Your task to perform on an android device: open app "Airtel Thanks" Image 0: 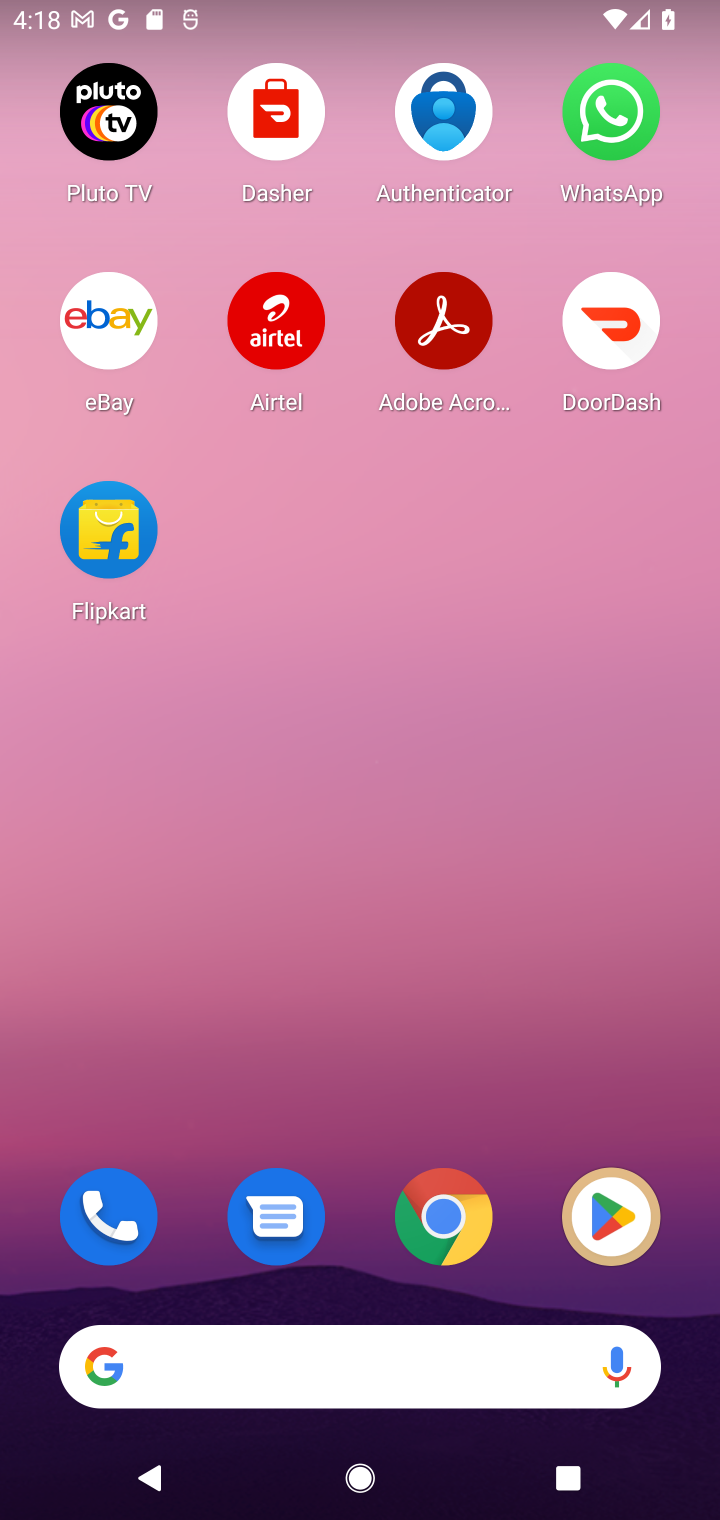
Step 0: drag from (342, 1131) to (353, 826)
Your task to perform on an android device: open app "Airtel Thanks" Image 1: 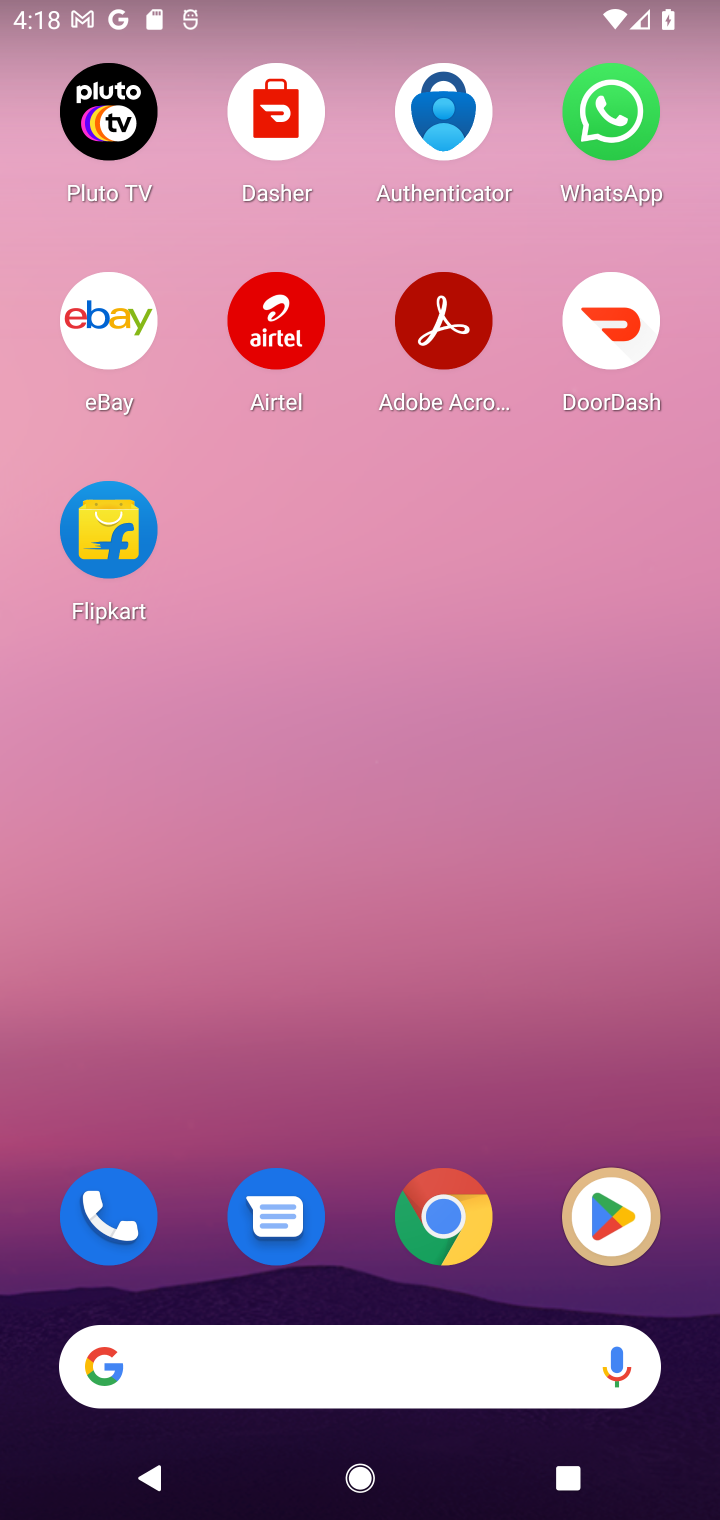
Step 1: press back button
Your task to perform on an android device: open app "Airtel Thanks" Image 2: 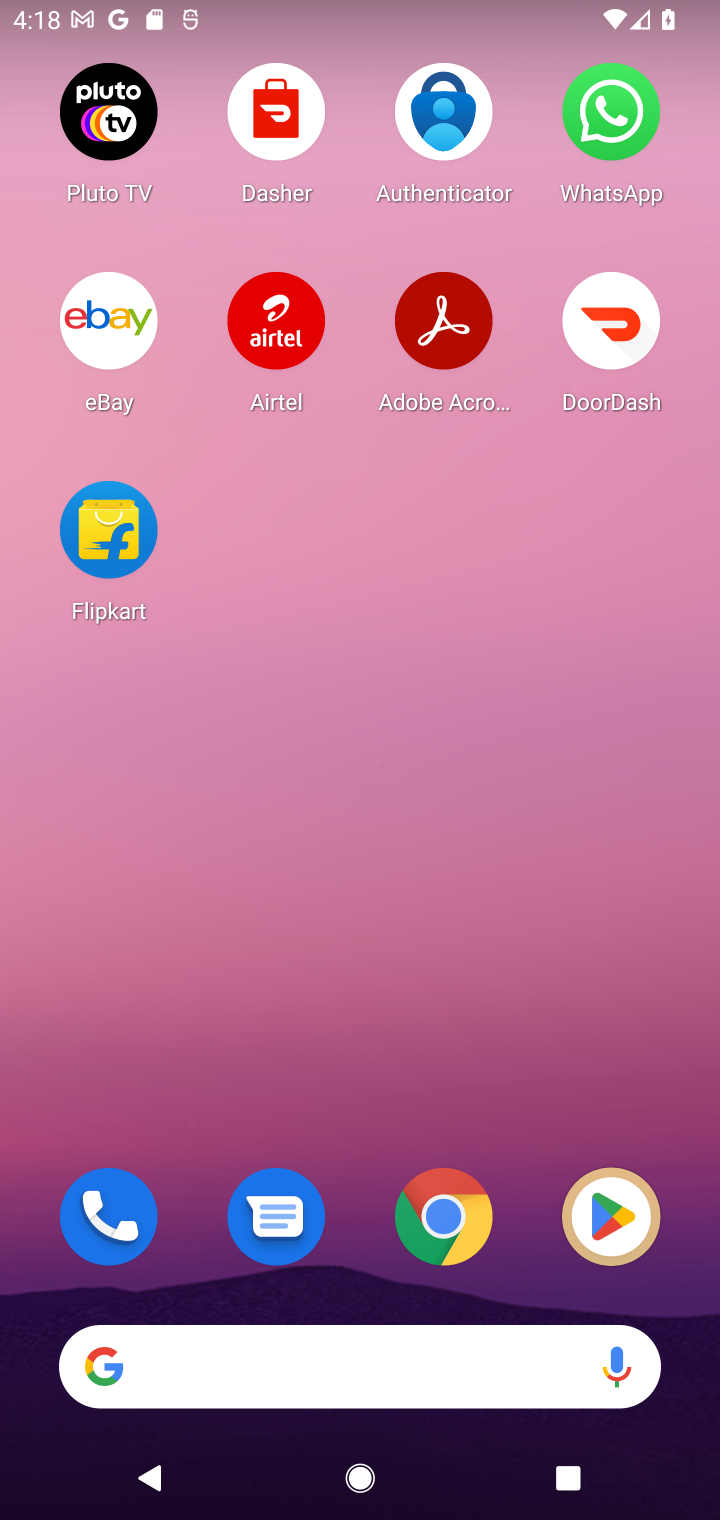
Step 2: click (623, 1191)
Your task to perform on an android device: open app "Airtel Thanks" Image 3: 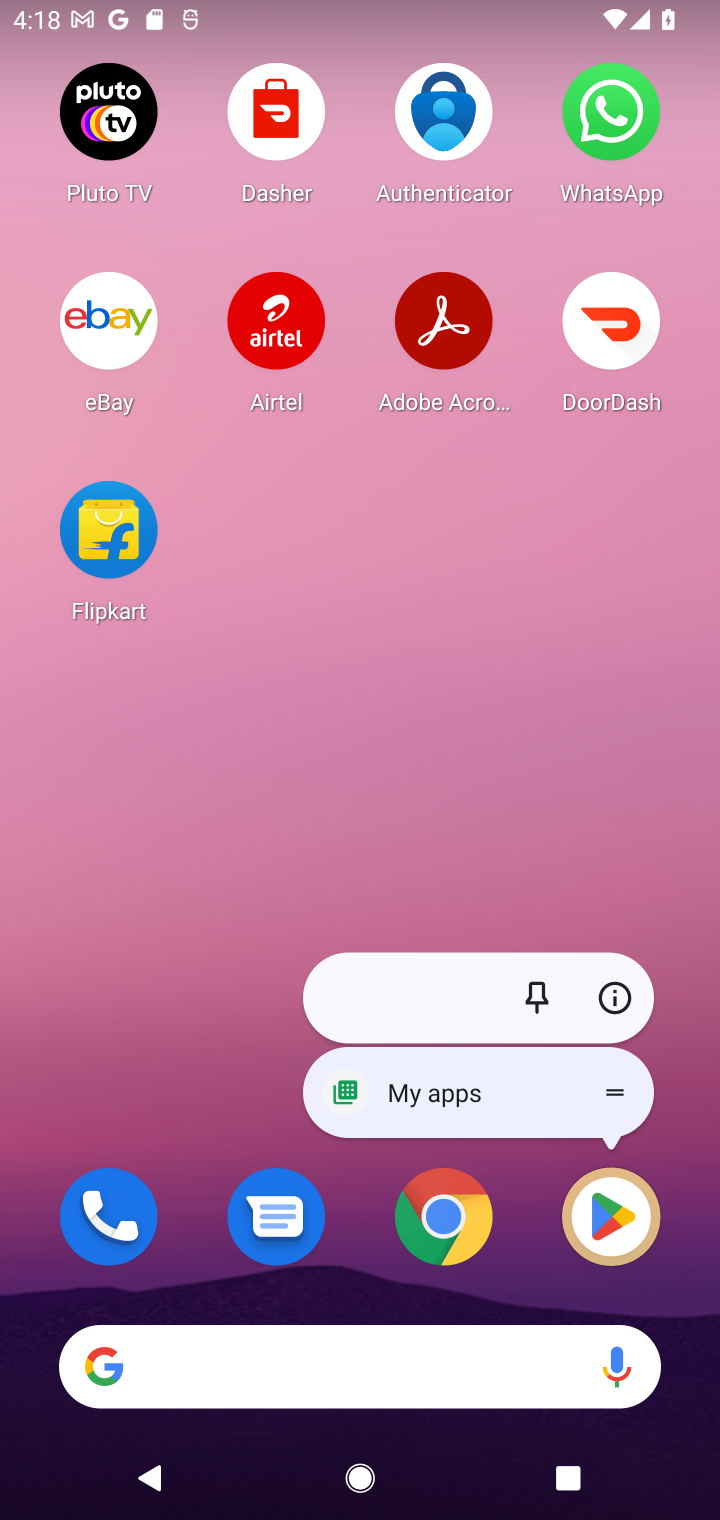
Step 3: click (603, 1181)
Your task to perform on an android device: open app "Airtel Thanks" Image 4: 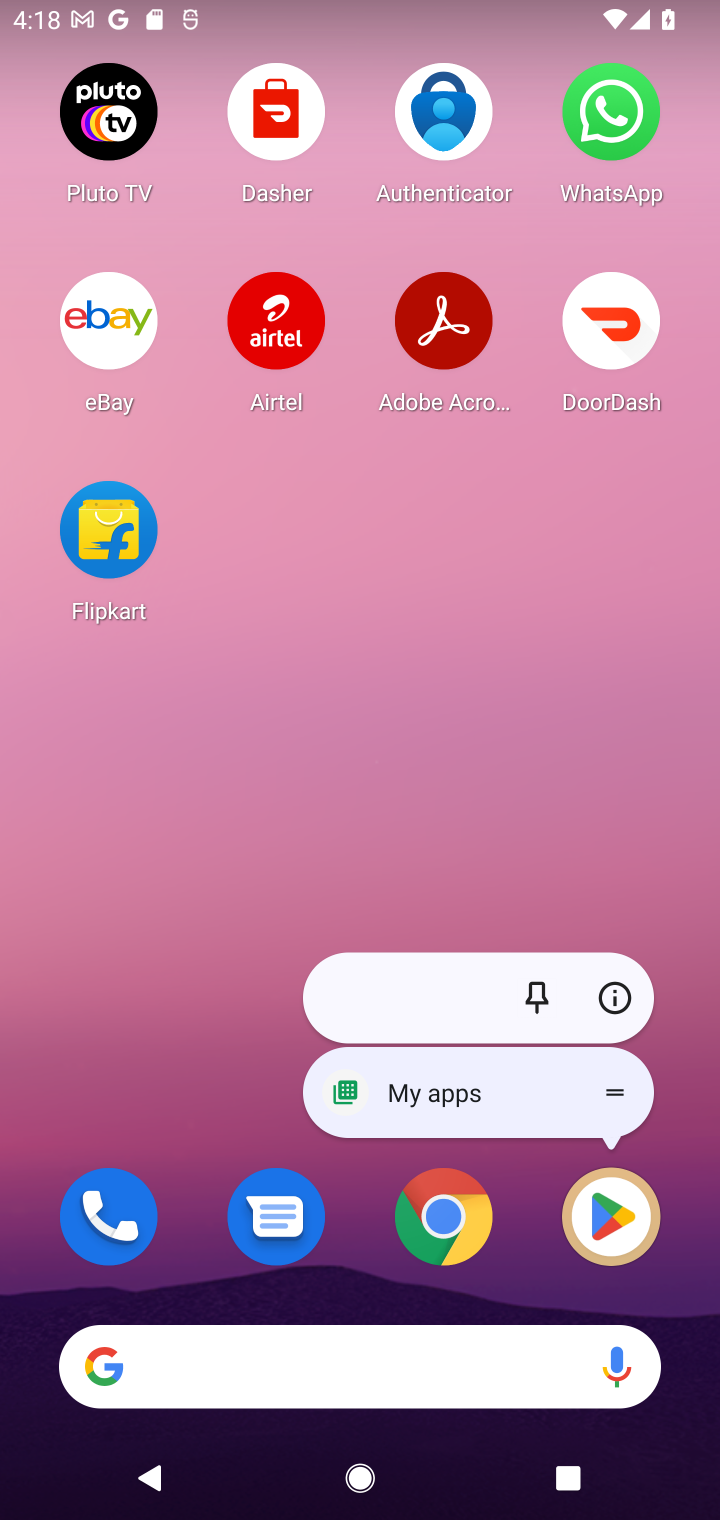
Step 4: click (600, 1208)
Your task to perform on an android device: open app "Airtel Thanks" Image 5: 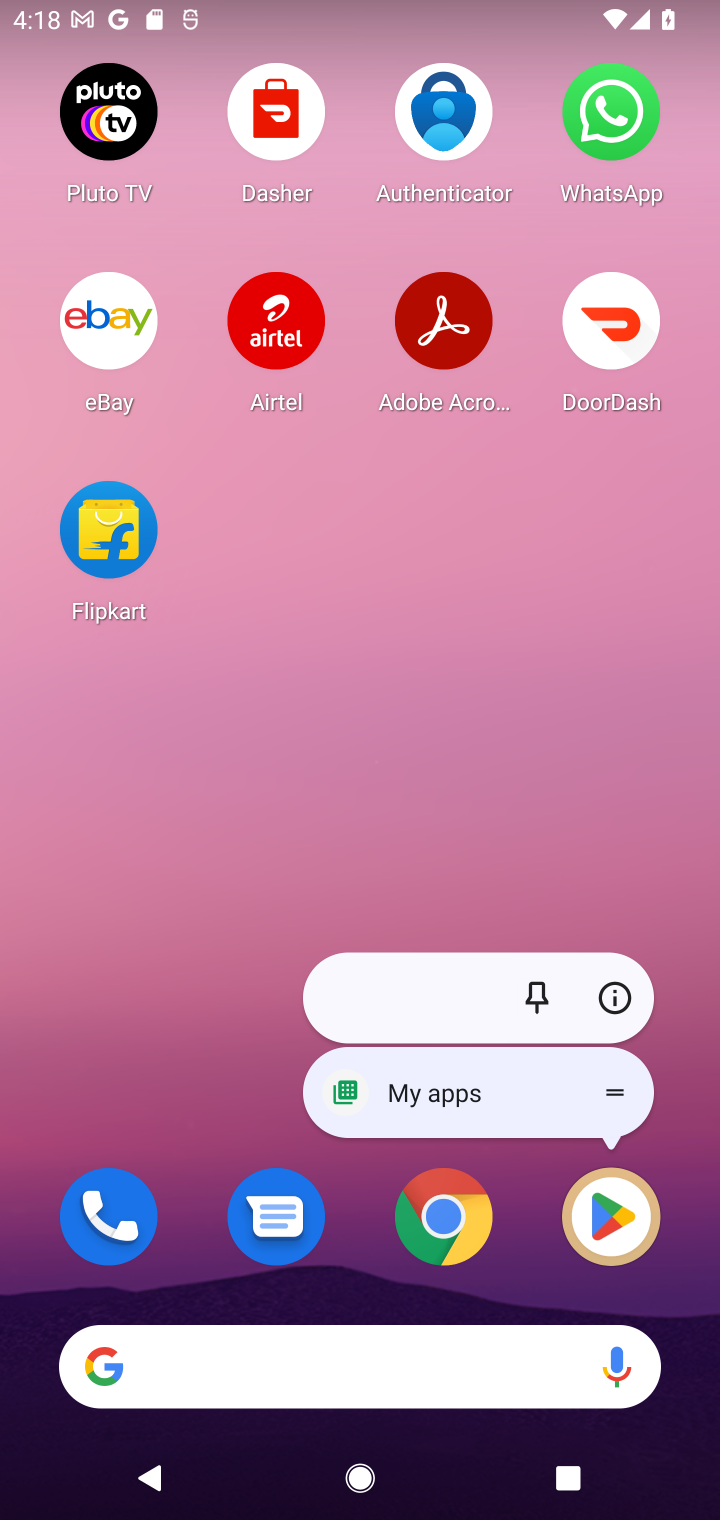
Step 5: click (600, 1208)
Your task to perform on an android device: open app "Airtel Thanks" Image 6: 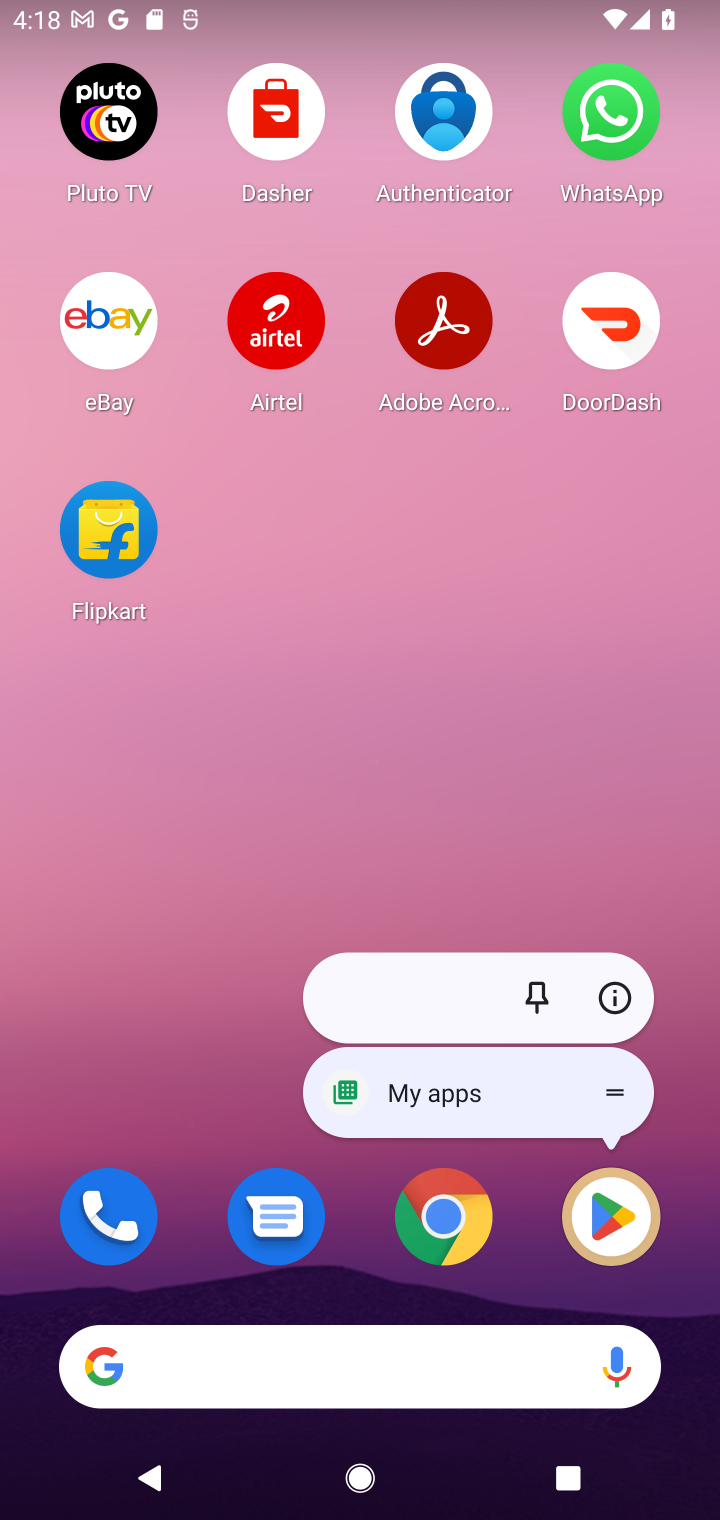
Step 6: click (610, 1207)
Your task to perform on an android device: open app "Airtel Thanks" Image 7: 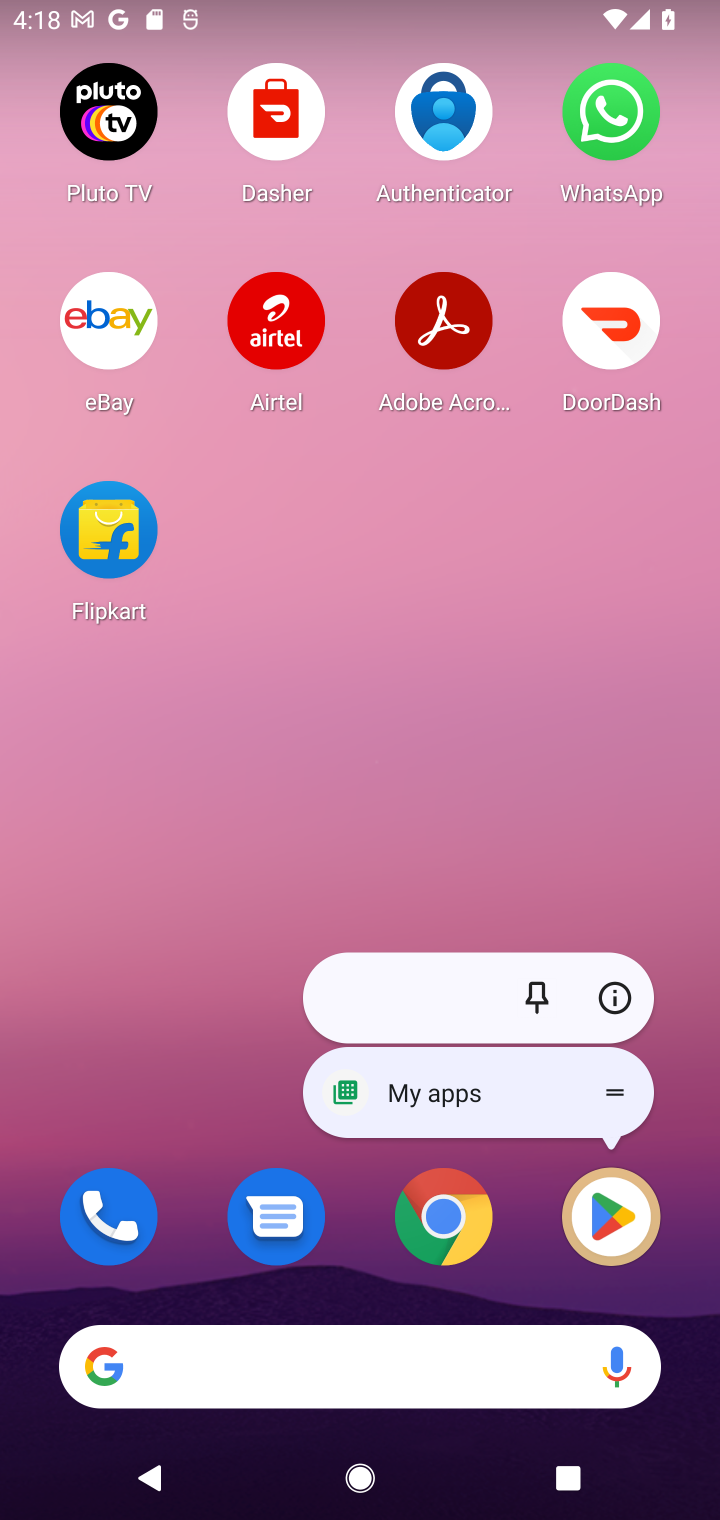
Step 7: click (612, 1212)
Your task to perform on an android device: open app "Airtel Thanks" Image 8: 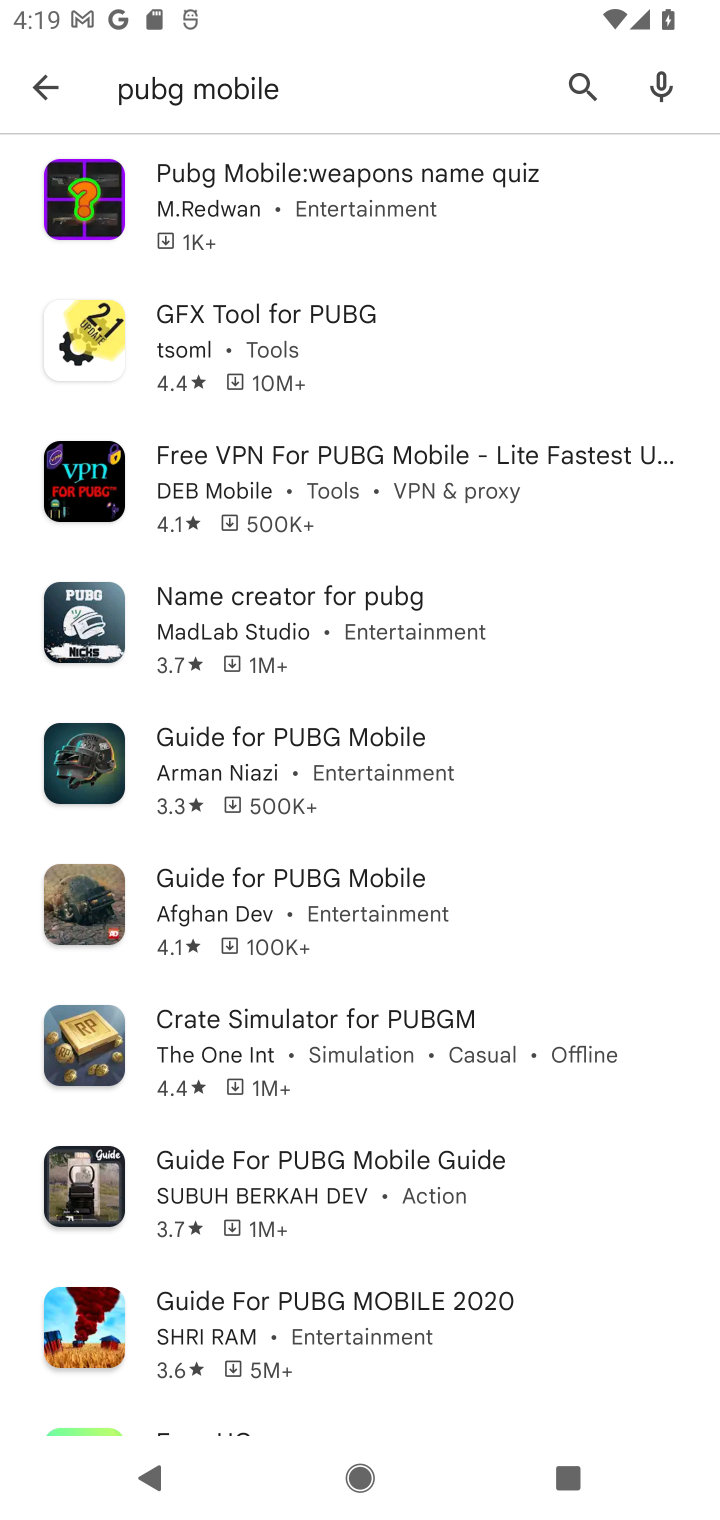
Step 8: click (581, 80)
Your task to perform on an android device: open app "Airtel Thanks" Image 9: 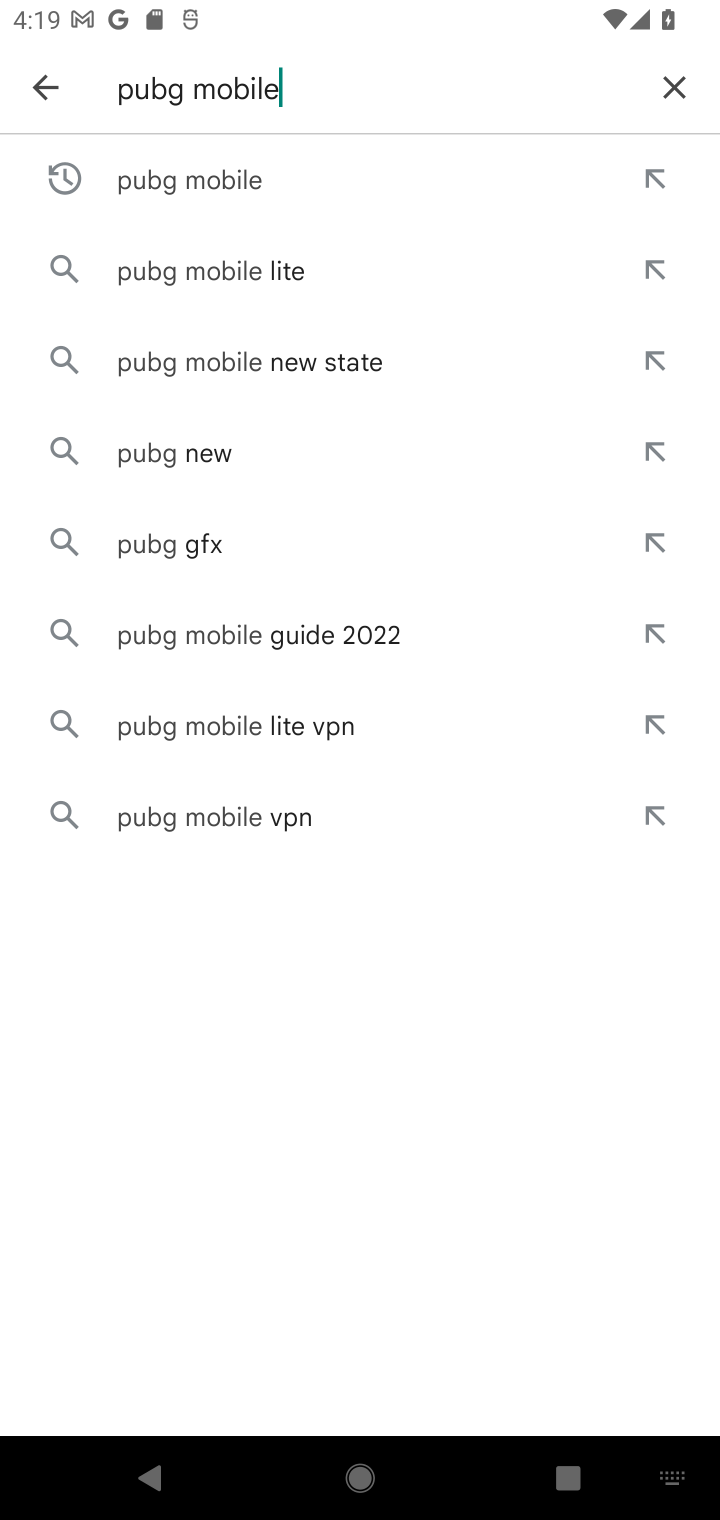
Step 9: click (666, 94)
Your task to perform on an android device: open app "Airtel Thanks" Image 10: 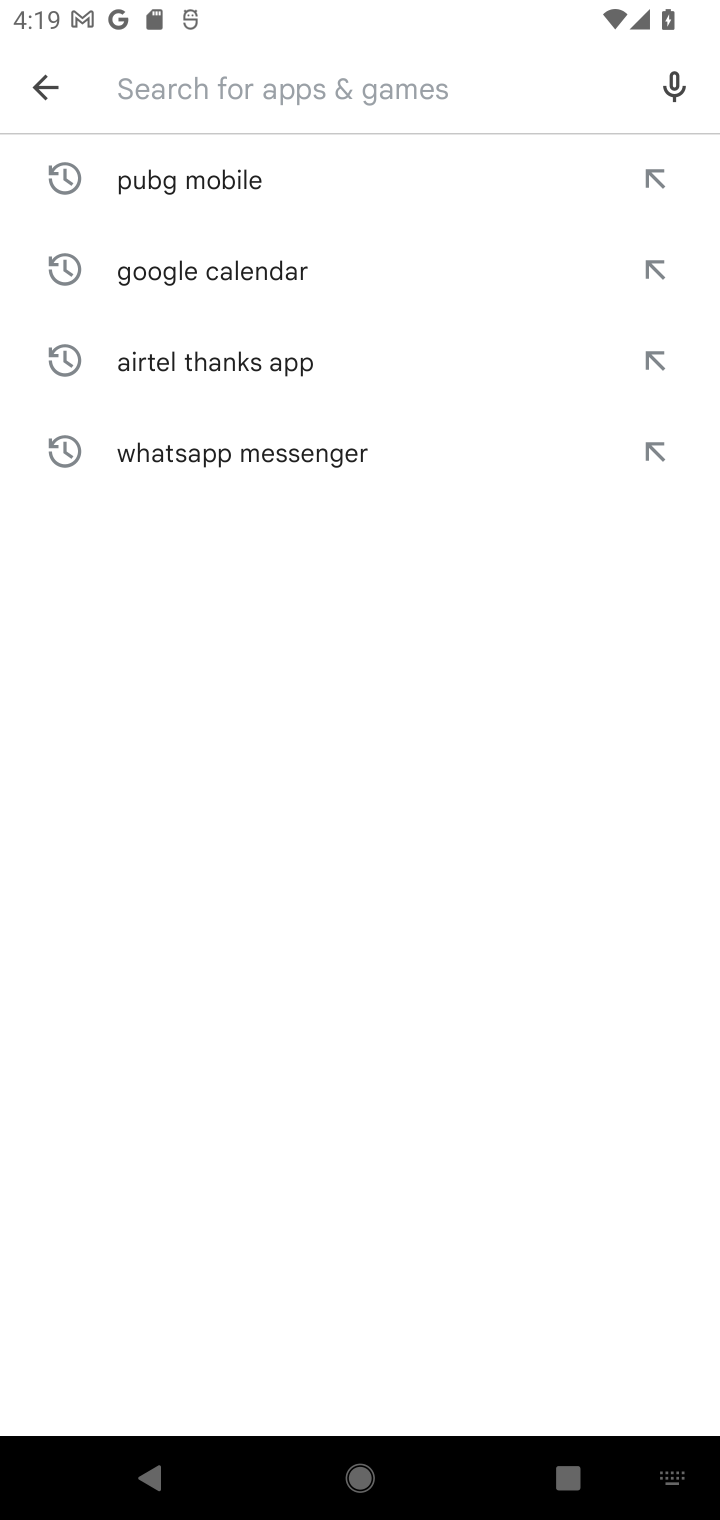
Step 10: type "Airtel Thanks"
Your task to perform on an android device: open app "Airtel Thanks" Image 11: 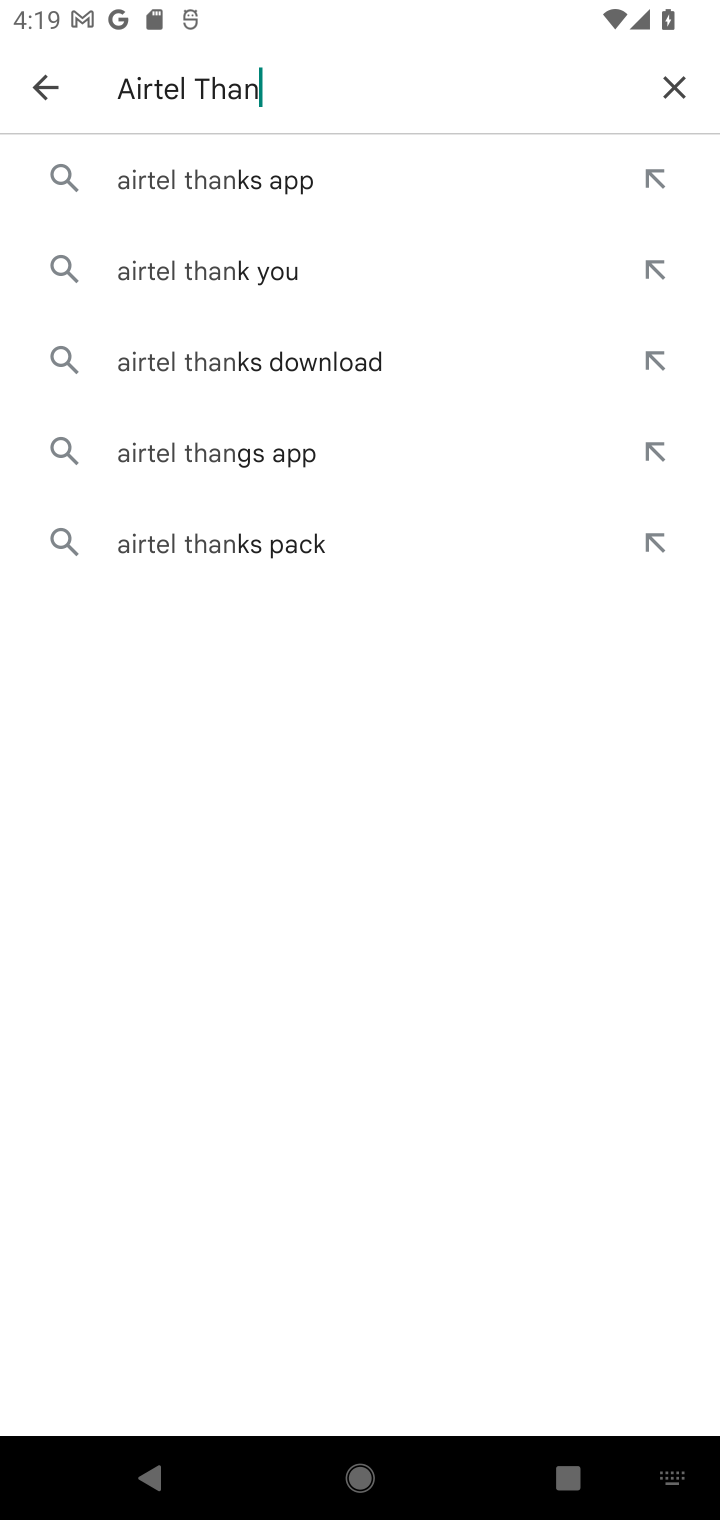
Step 11: type ""
Your task to perform on an android device: open app "Airtel Thanks" Image 12: 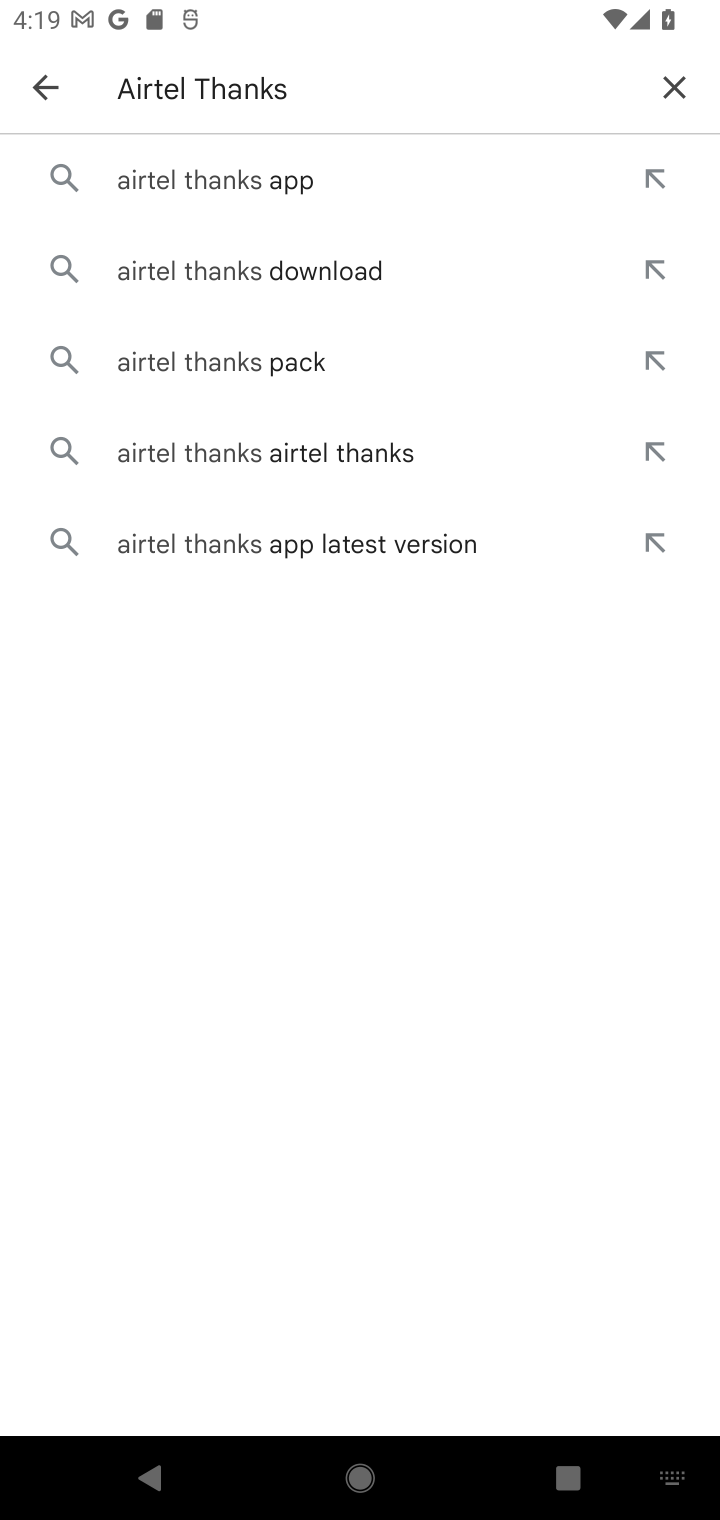
Step 12: click (159, 170)
Your task to perform on an android device: open app "Airtel Thanks" Image 13: 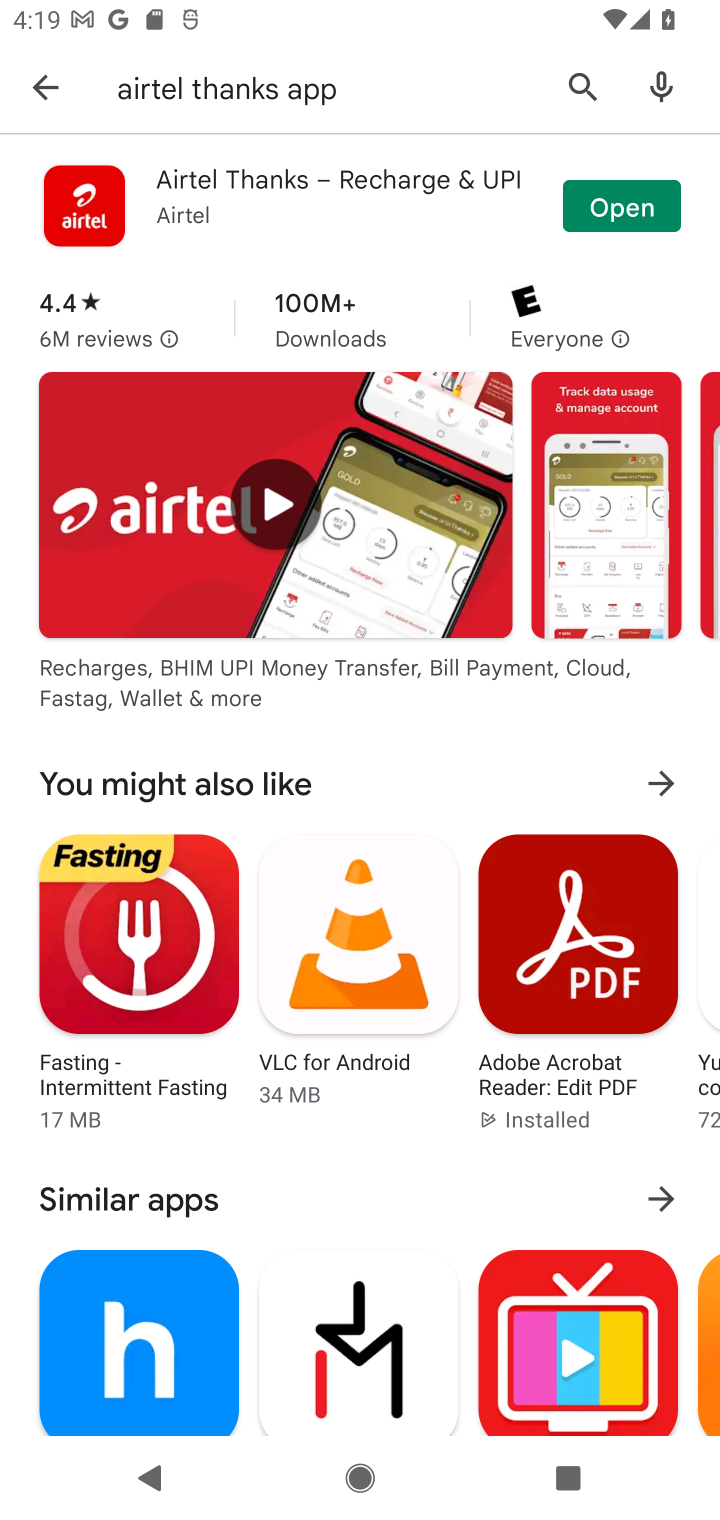
Step 13: click (648, 218)
Your task to perform on an android device: open app "Airtel Thanks" Image 14: 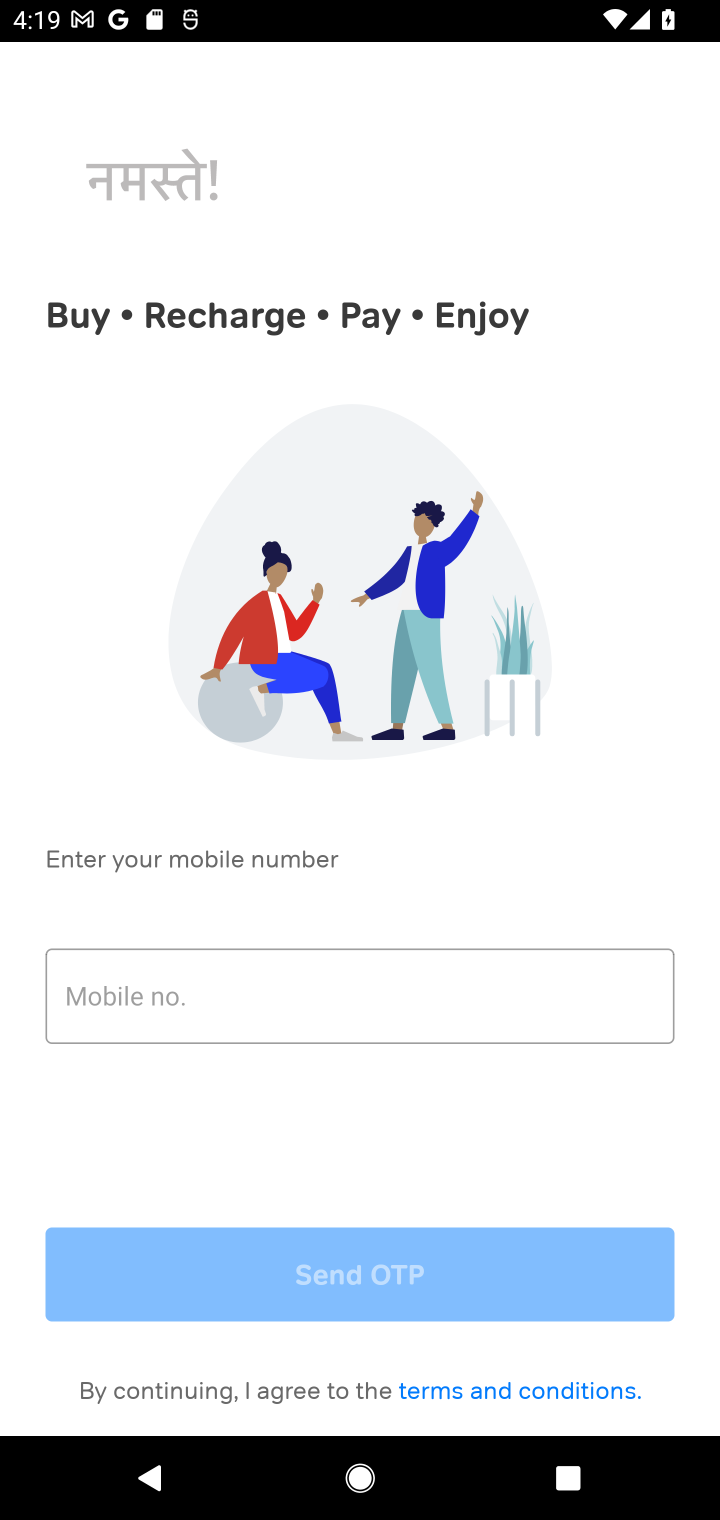
Step 14: task complete